Your task to perform on an android device: Open location settings Image 0: 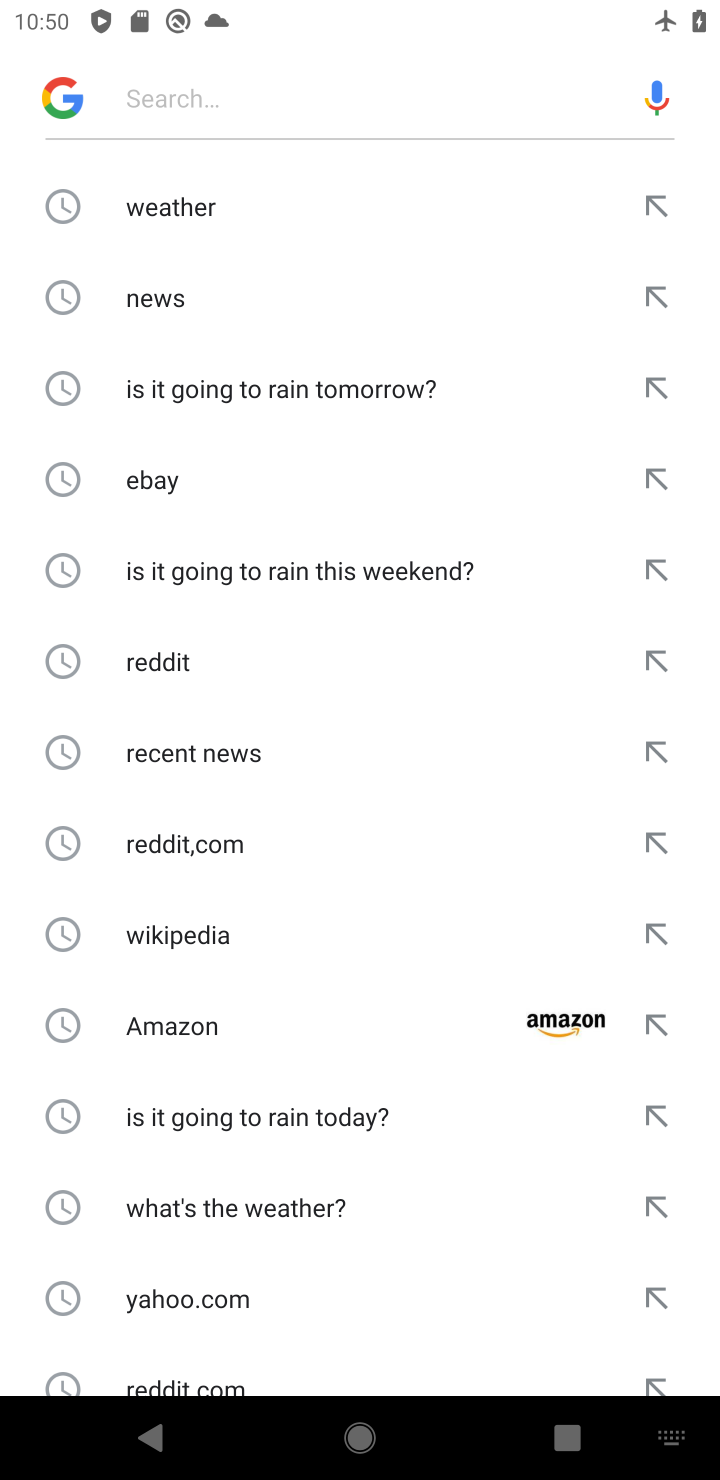
Step 0: press home button
Your task to perform on an android device: Open location settings Image 1: 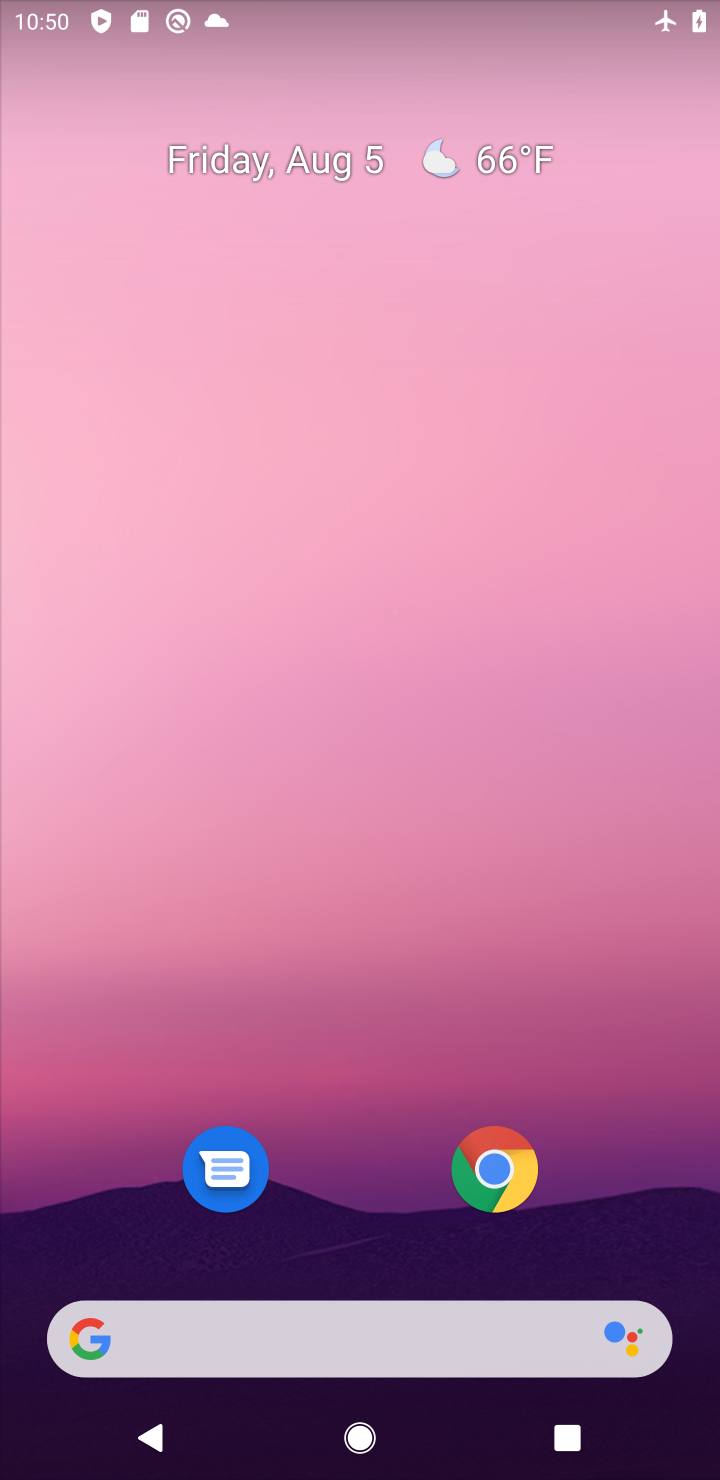
Step 1: drag from (662, 1243) to (521, 316)
Your task to perform on an android device: Open location settings Image 2: 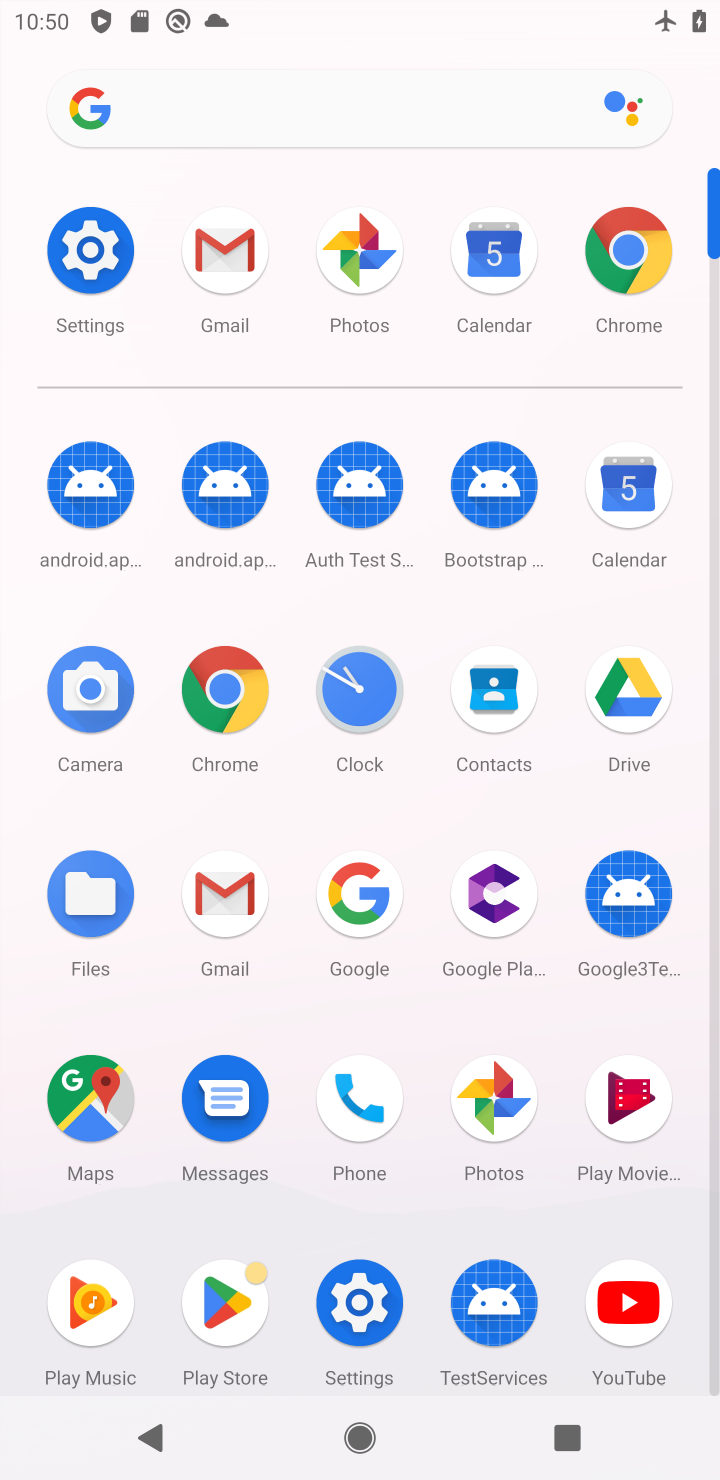
Step 2: click (363, 1303)
Your task to perform on an android device: Open location settings Image 3: 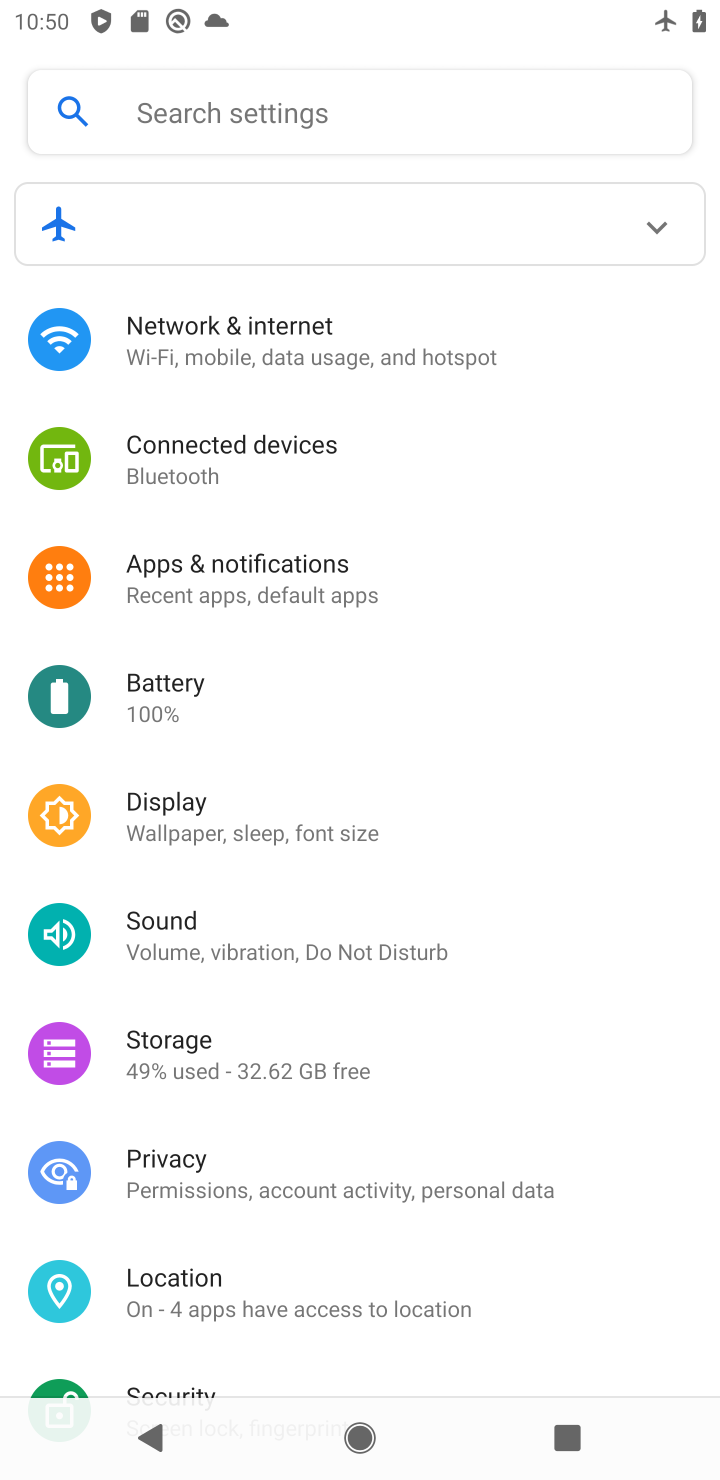
Step 3: click (211, 1271)
Your task to perform on an android device: Open location settings Image 4: 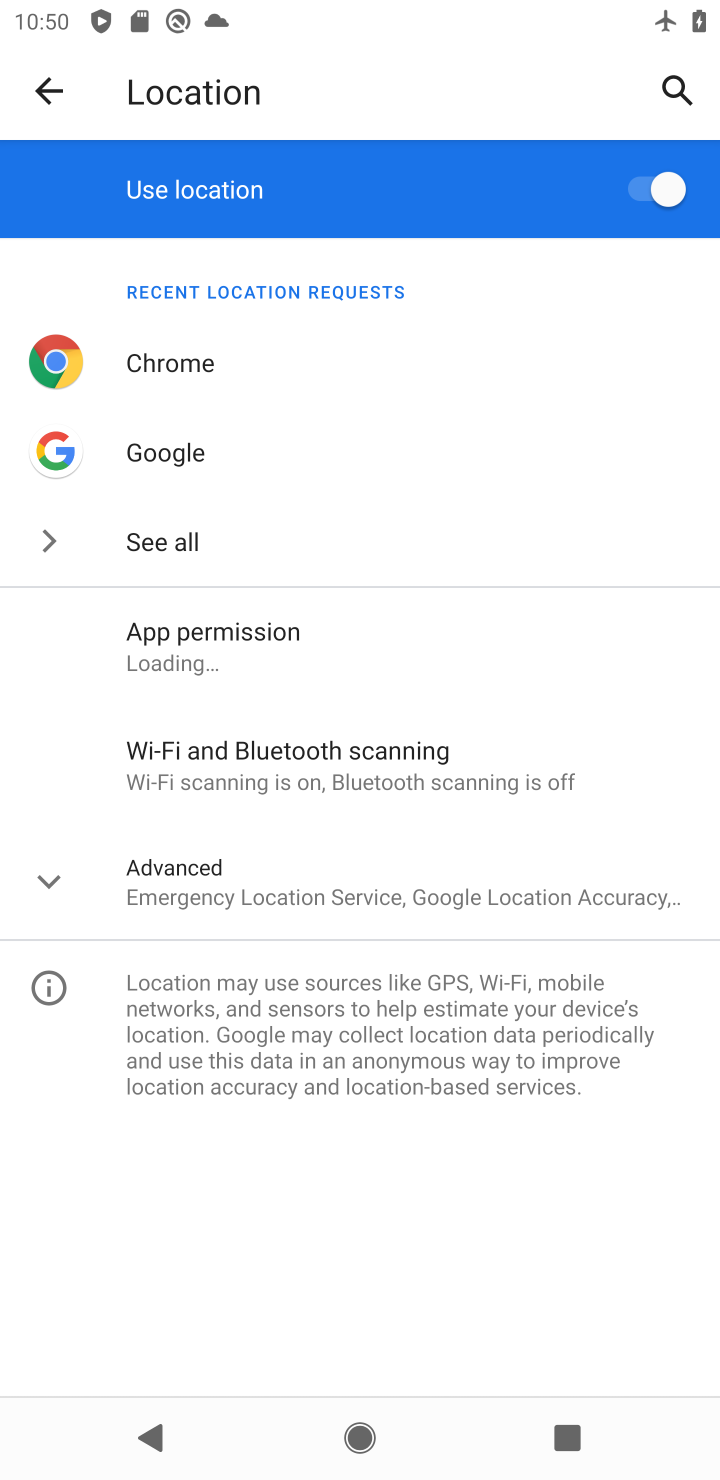
Step 4: click (39, 875)
Your task to perform on an android device: Open location settings Image 5: 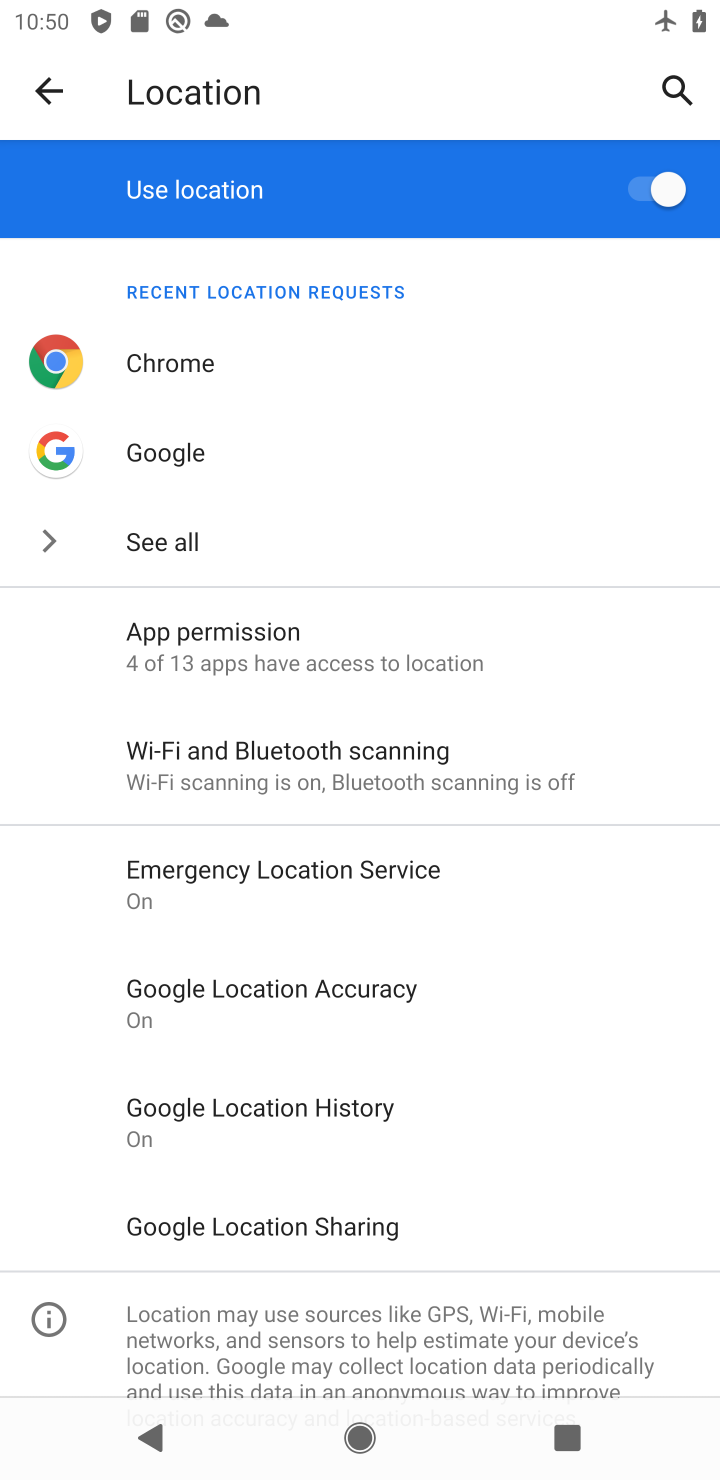
Step 5: task complete